Your task to perform on an android device: Do I have any events today? Image 0: 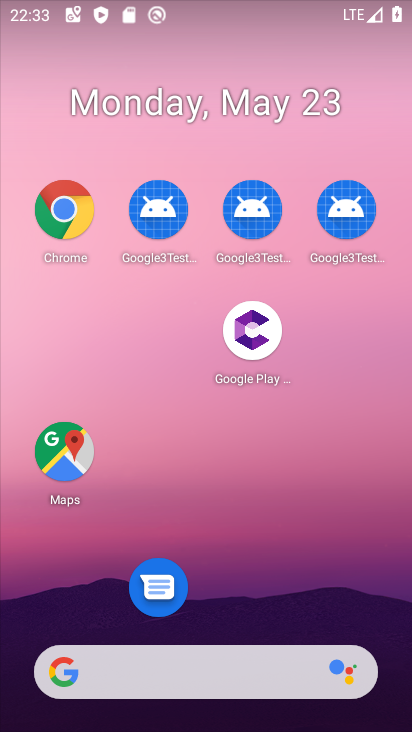
Step 0: drag from (253, 583) to (254, 167)
Your task to perform on an android device: Do I have any events today? Image 1: 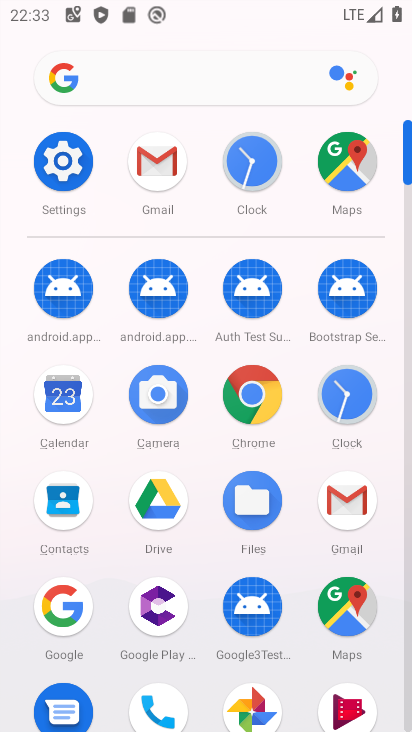
Step 1: click (67, 422)
Your task to perform on an android device: Do I have any events today? Image 2: 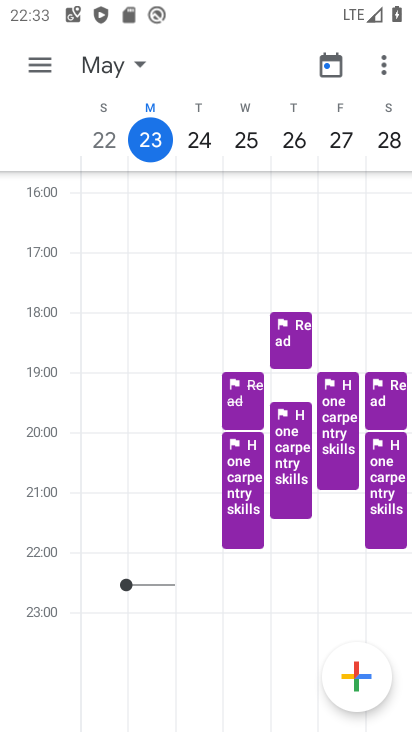
Step 2: click (197, 145)
Your task to perform on an android device: Do I have any events today? Image 3: 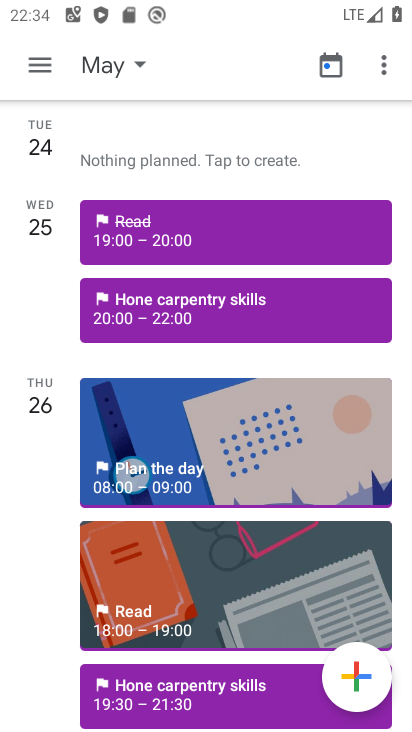
Step 3: click (31, 73)
Your task to perform on an android device: Do I have any events today? Image 4: 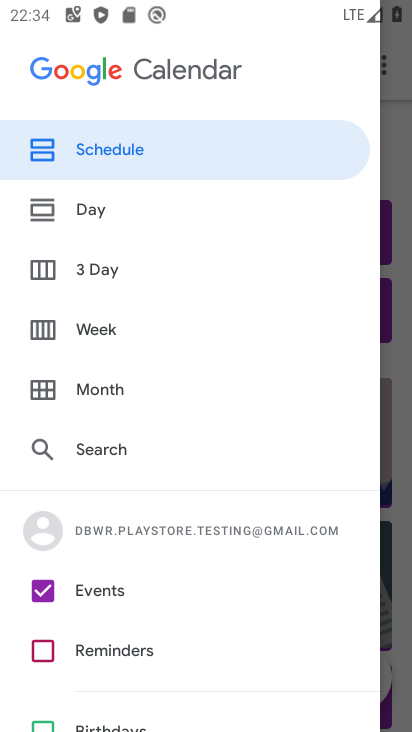
Step 4: click (392, 202)
Your task to perform on an android device: Do I have any events today? Image 5: 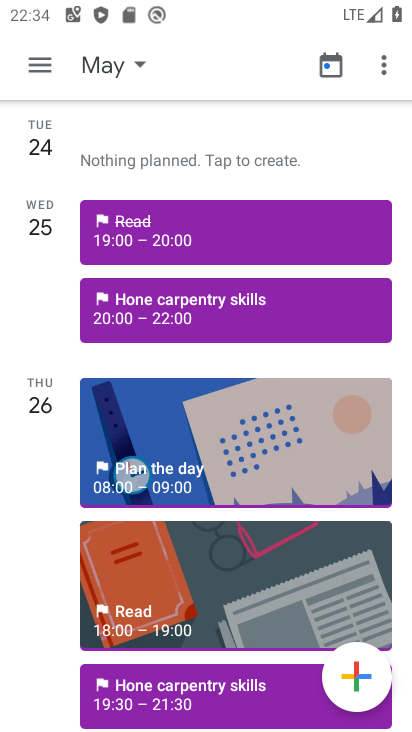
Step 5: task complete